Your task to perform on an android device: change the clock style Image 0: 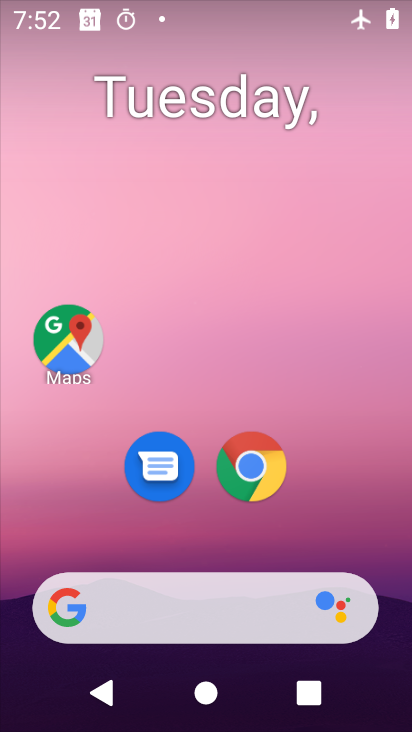
Step 0: drag from (60, 597) to (331, 26)
Your task to perform on an android device: change the clock style Image 1: 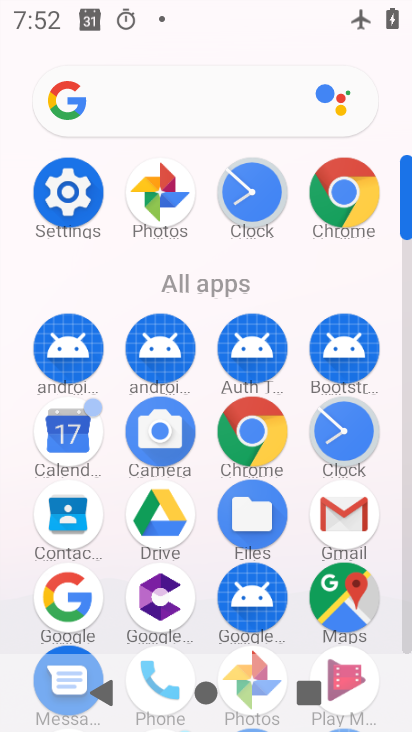
Step 1: click (347, 440)
Your task to perform on an android device: change the clock style Image 2: 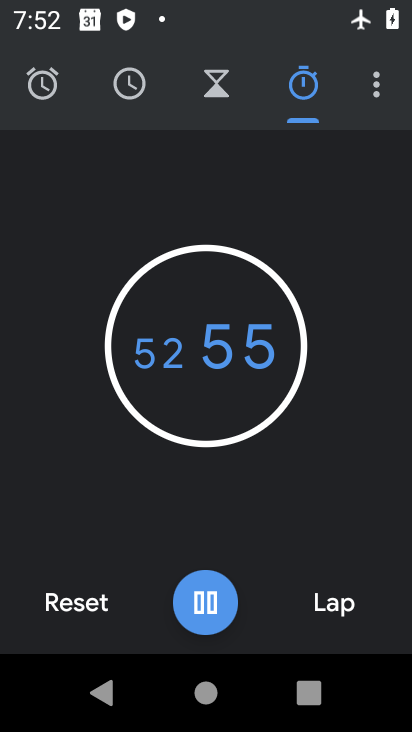
Step 2: click (376, 99)
Your task to perform on an android device: change the clock style Image 3: 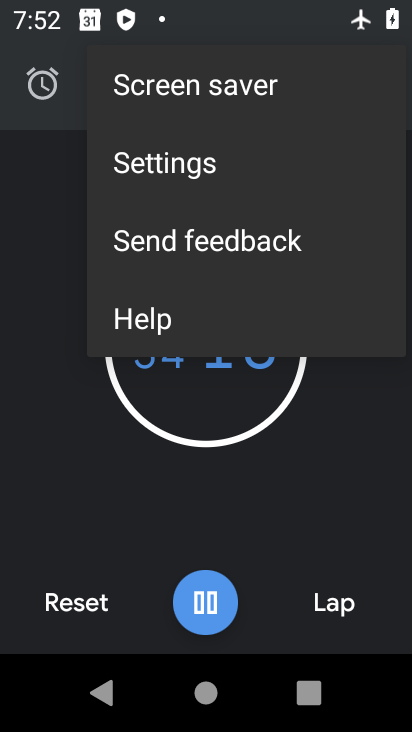
Step 3: click (237, 186)
Your task to perform on an android device: change the clock style Image 4: 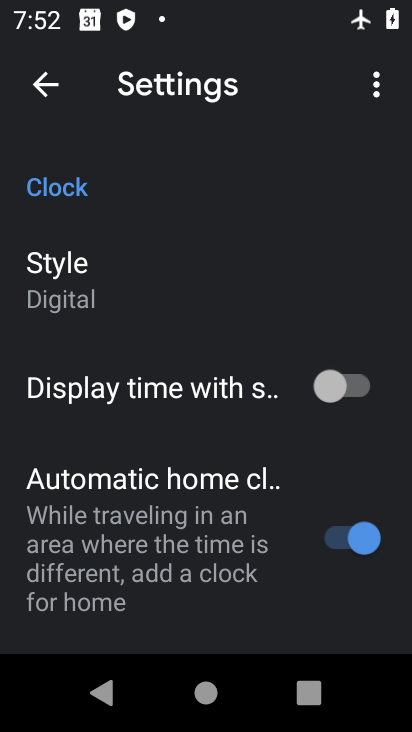
Step 4: click (57, 256)
Your task to perform on an android device: change the clock style Image 5: 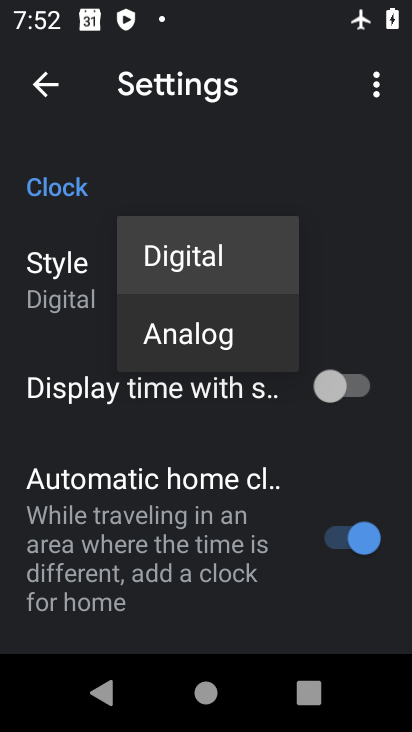
Step 5: click (211, 337)
Your task to perform on an android device: change the clock style Image 6: 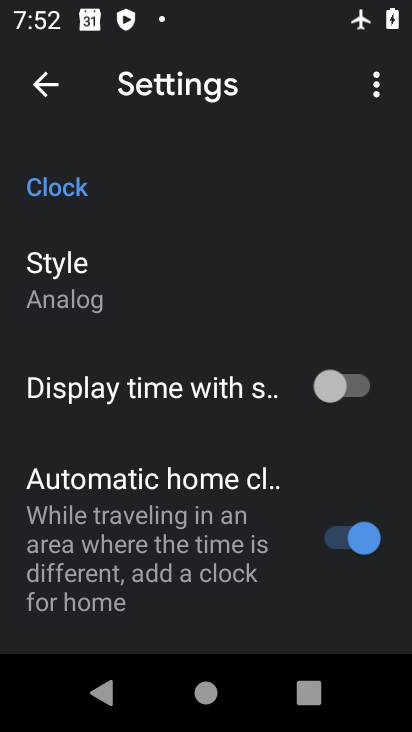
Step 6: task complete